Your task to perform on an android device: Open Yahoo.com Image 0: 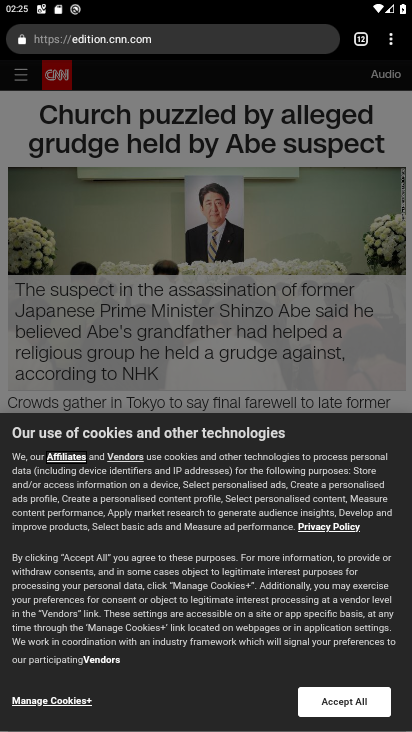
Step 0: press home button
Your task to perform on an android device: Open Yahoo.com Image 1: 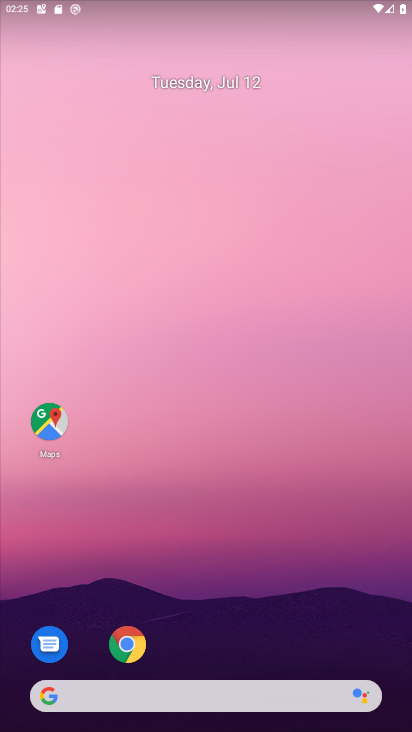
Step 1: click (139, 637)
Your task to perform on an android device: Open Yahoo.com Image 2: 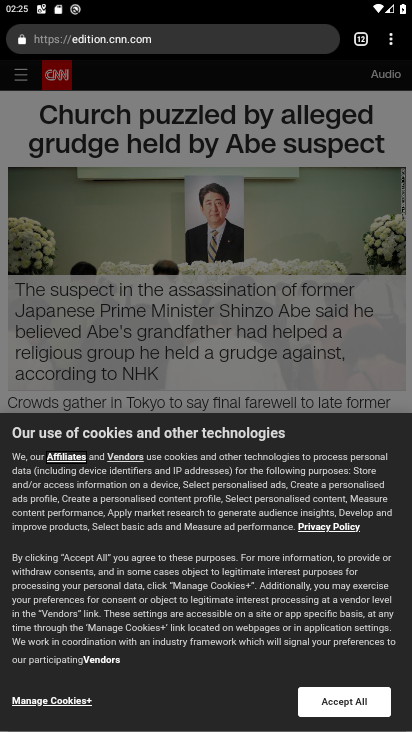
Step 2: click (360, 712)
Your task to perform on an android device: Open Yahoo.com Image 3: 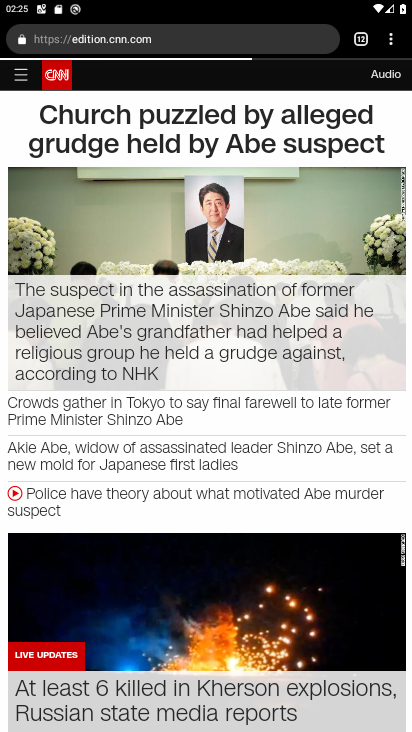
Step 3: click (368, 36)
Your task to perform on an android device: Open Yahoo.com Image 4: 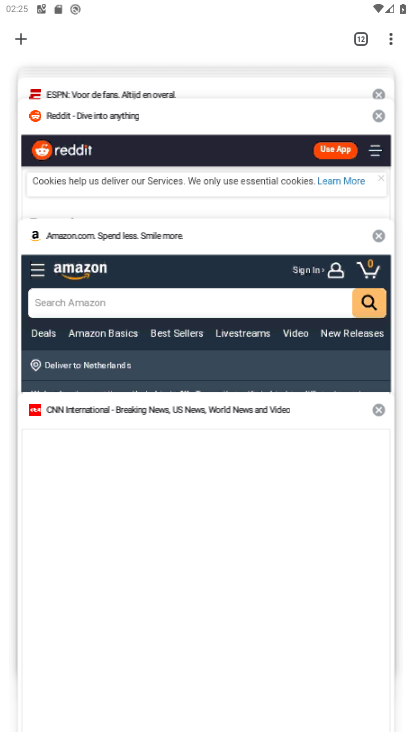
Step 4: click (20, 30)
Your task to perform on an android device: Open Yahoo.com Image 5: 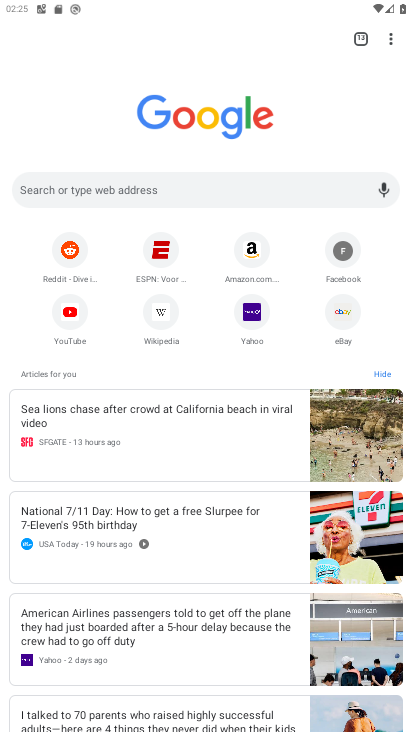
Step 5: click (251, 318)
Your task to perform on an android device: Open Yahoo.com Image 6: 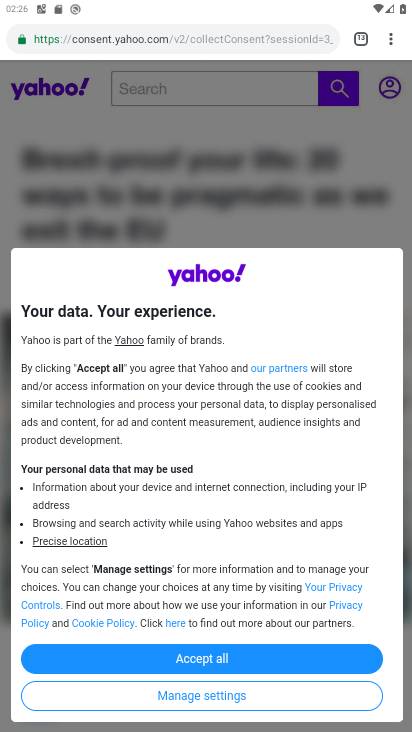
Step 6: click (102, 645)
Your task to perform on an android device: Open Yahoo.com Image 7: 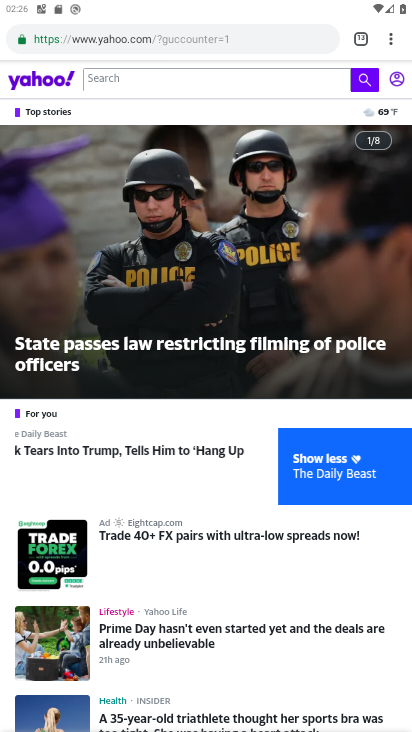
Step 7: task complete